Your task to perform on an android device: check the backup settings in the google photos Image 0: 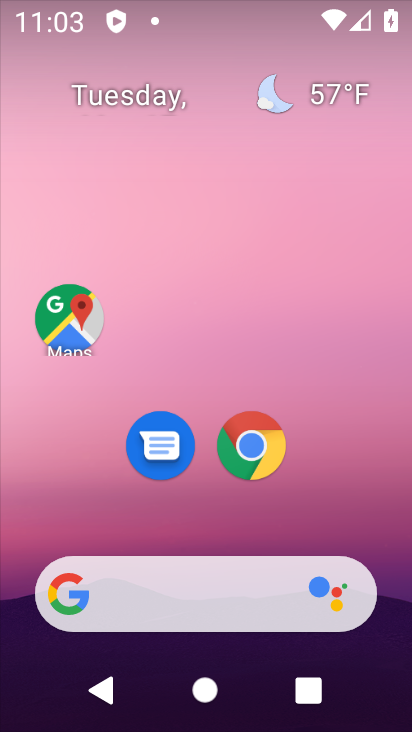
Step 0: drag from (366, 500) to (371, 131)
Your task to perform on an android device: check the backup settings in the google photos Image 1: 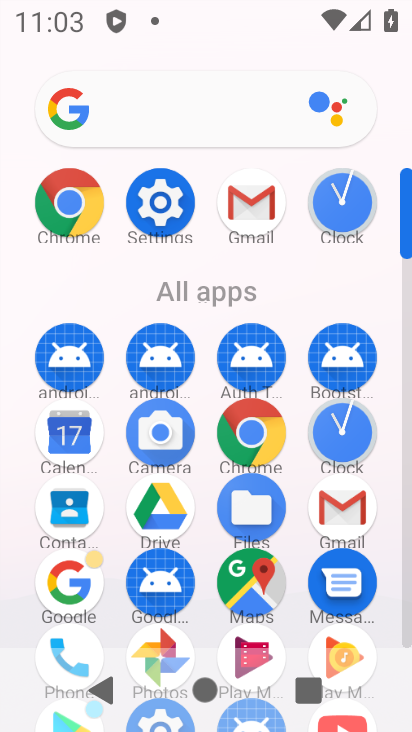
Step 1: drag from (394, 521) to (395, 315)
Your task to perform on an android device: check the backup settings in the google photos Image 2: 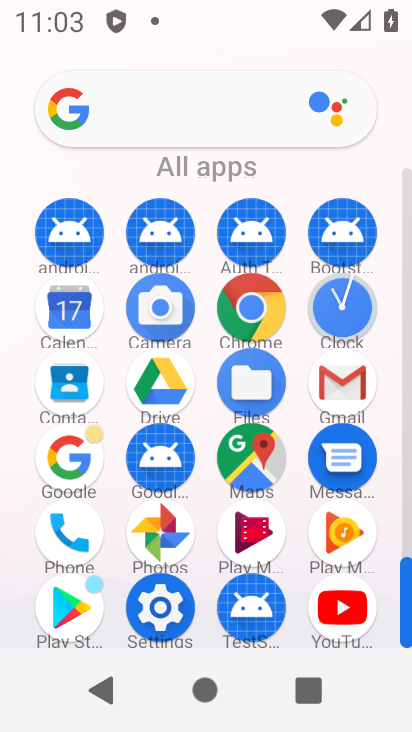
Step 2: click (164, 551)
Your task to perform on an android device: check the backup settings in the google photos Image 3: 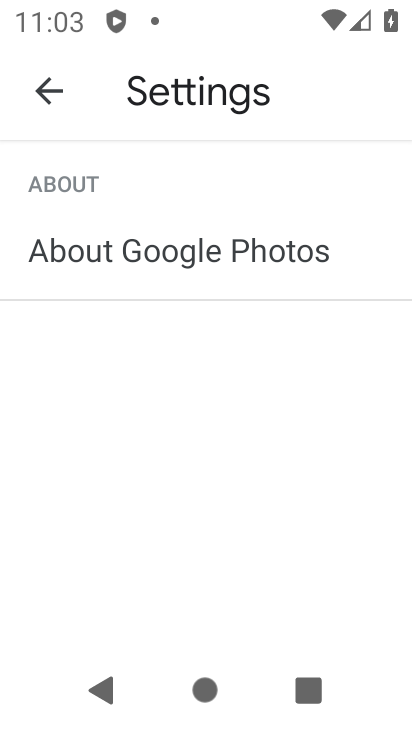
Step 3: click (50, 91)
Your task to perform on an android device: check the backup settings in the google photos Image 4: 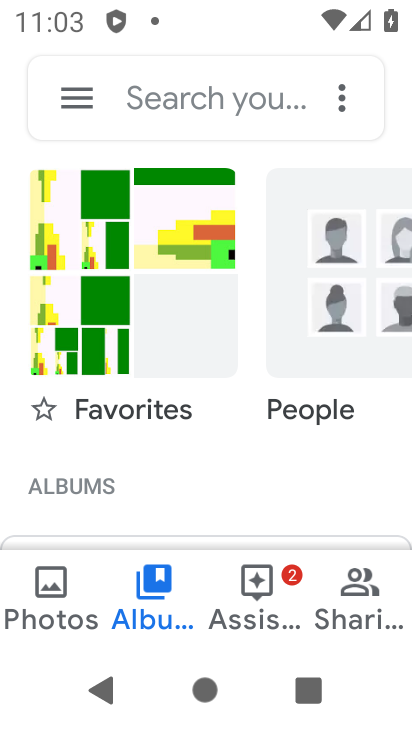
Step 4: click (84, 99)
Your task to perform on an android device: check the backup settings in the google photos Image 5: 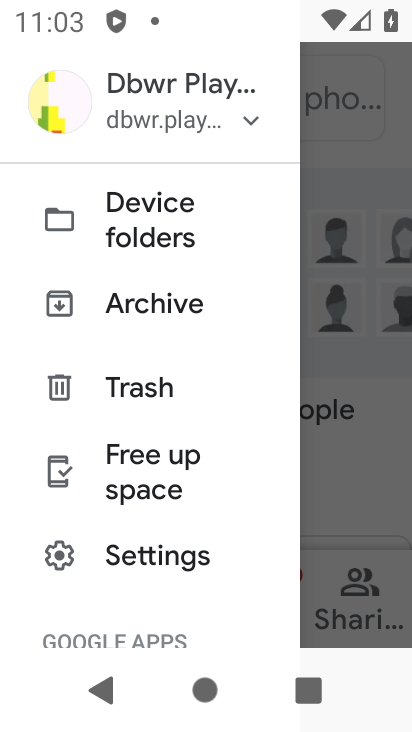
Step 5: drag from (229, 550) to (237, 342)
Your task to perform on an android device: check the backup settings in the google photos Image 6: 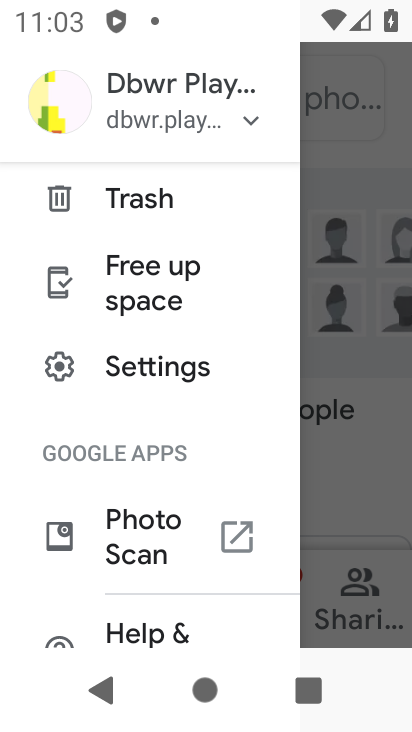
Step 6: drag from (194, 573) to (187, 408)
Your task to perform on an android device: check the backup settings in the google photos Image 7: 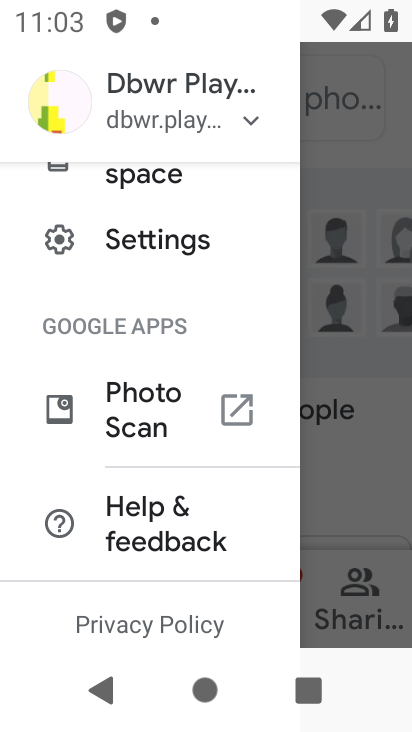
Step 7: click (186, 245)
Your task to perform on an android device: check the backup settings in the google photos Image 8: 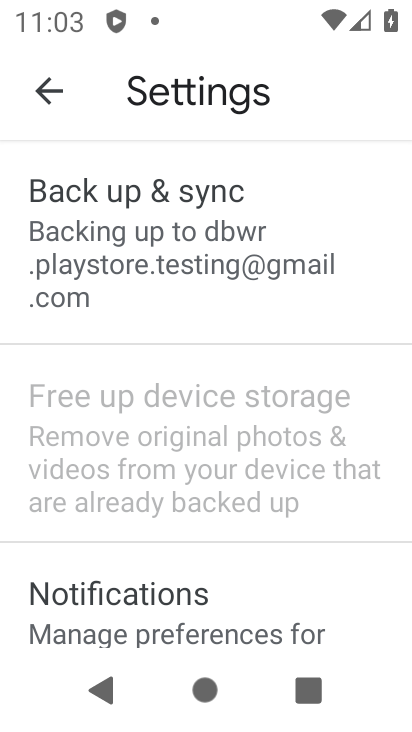
Step 8: drag from (256, 543) to (278, 321)
Your task to perform on an android device: check the backup settings in the google photos Image 9: 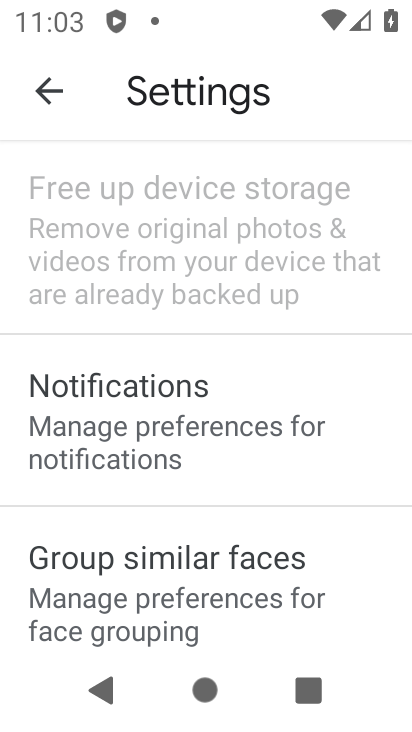
Step 9: drag from (297, 589) to (306, 411)
Your task to perform on an android device: check the backup settings in the google photos Image 10: 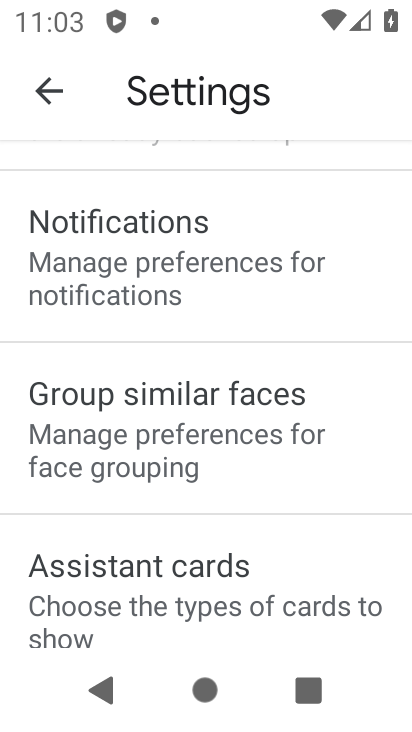
Step 10: drag from (356, 274) to (339, 501)
Your task to perform on an android device: check the backup settings in the google photos Image 11: 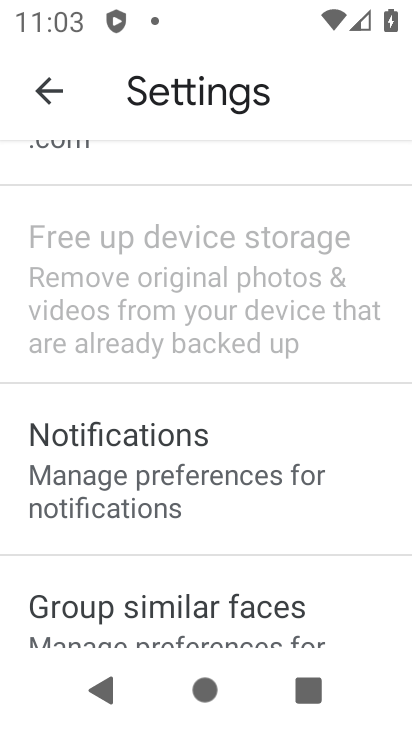
Step 11: drag from (365, 213) to (342, 436)
Your task to perform on an android device: check the backup settings in the google photos Image 12: 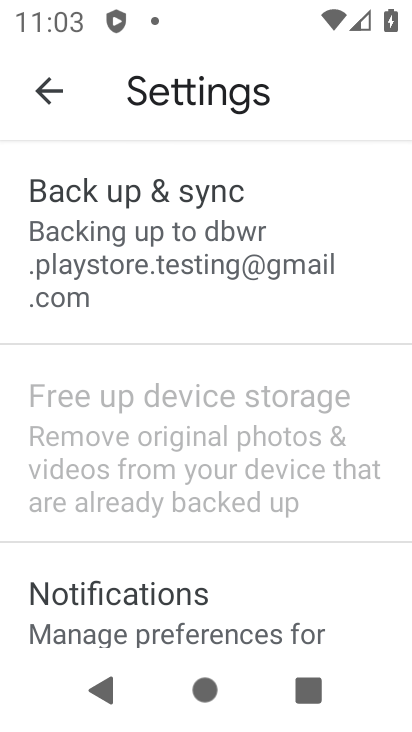
Step 12: click (193, 263)
Your task to perform on an android device: check the backup settings in the google photos Image 13: 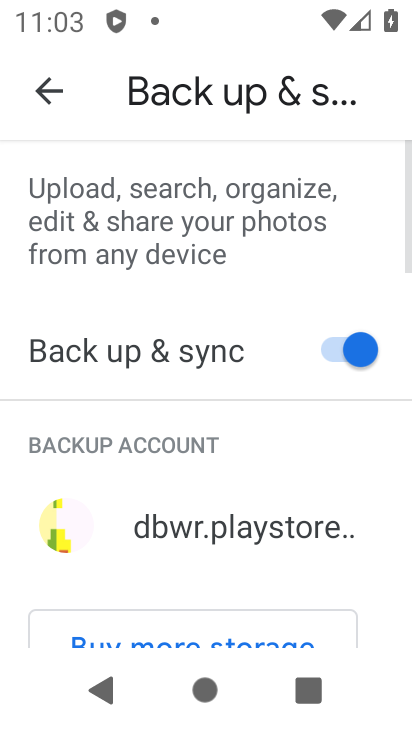
Step 13: task complete